Your task to perform on an android device: add a label to a message in the gmail app Image 0: 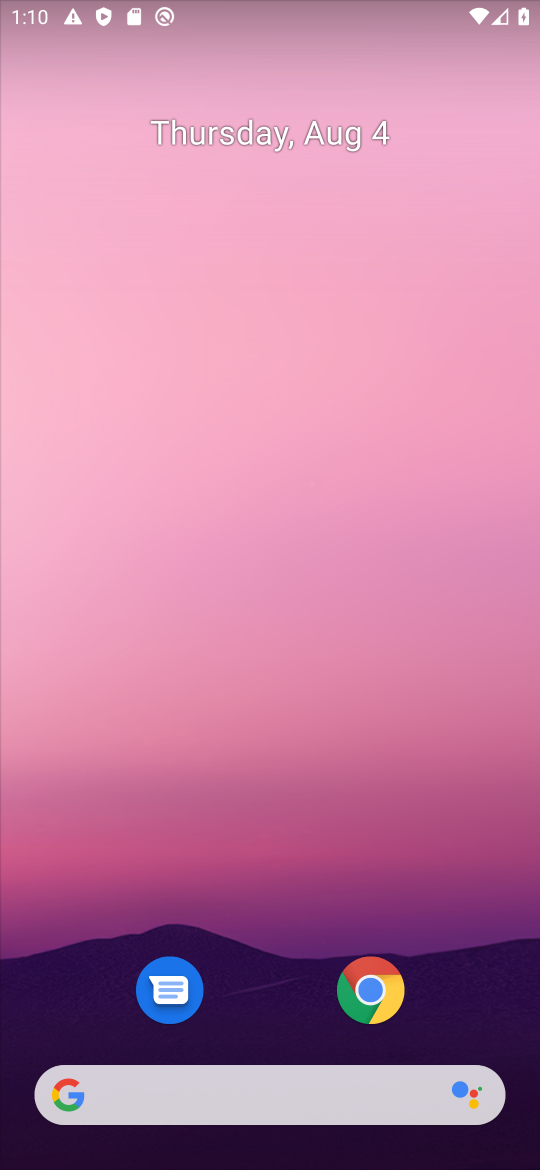
Step 0: drag from (427, 1043) to (379, 246)
Your task to perform on an android device: add a label to a message in the gmail app Image 1: 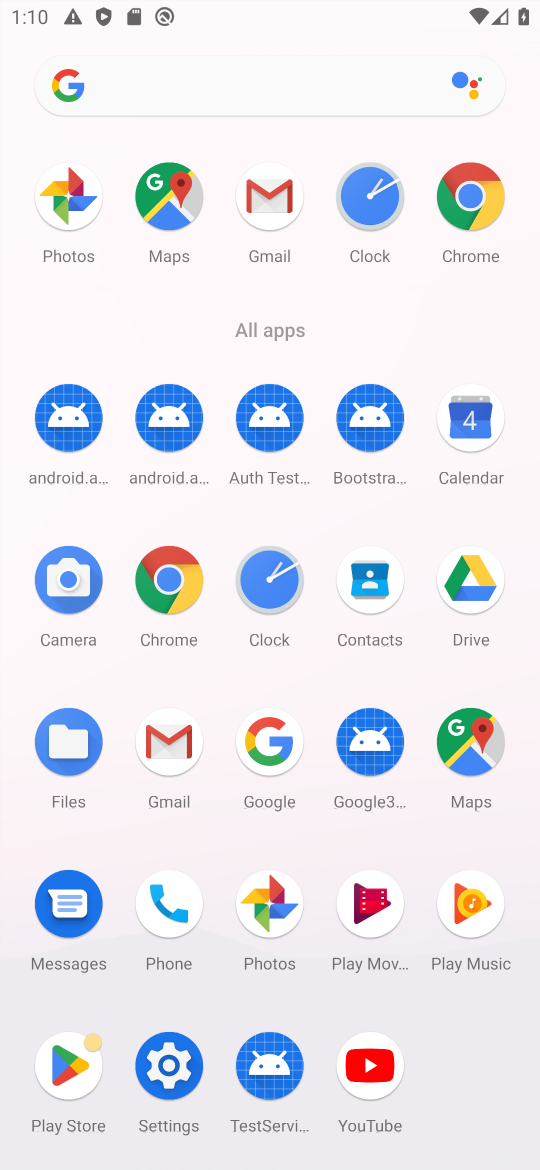
Step 1: click (293, 217)
Your task to perform on an android device: add a label to a message in the gmail app Image 2: 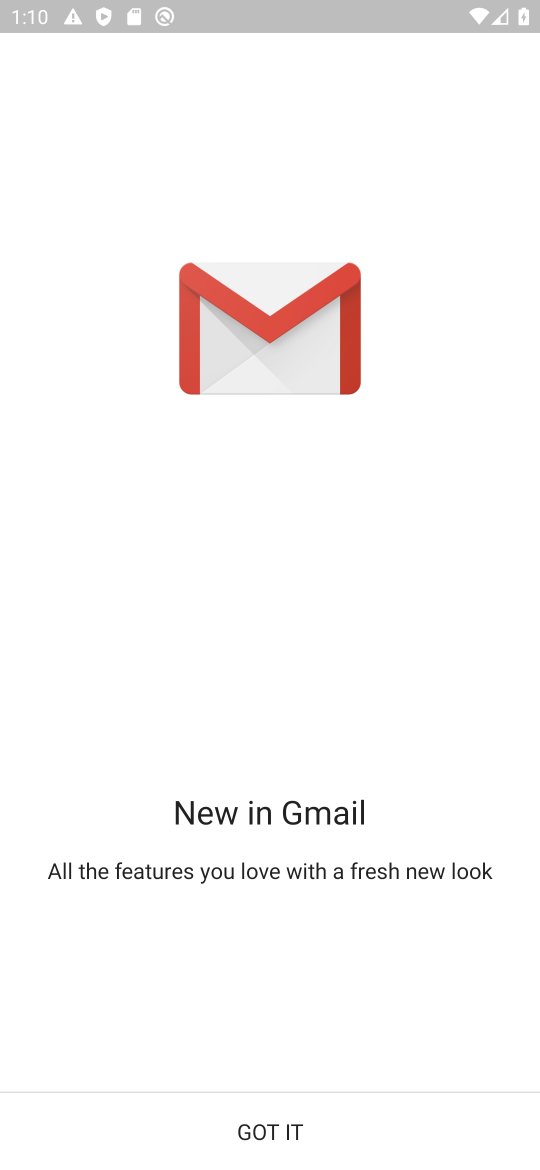
Step 2: click (233, 1105)
Your task to perform on an android device: add a label to a message in the gmail app Image 3: 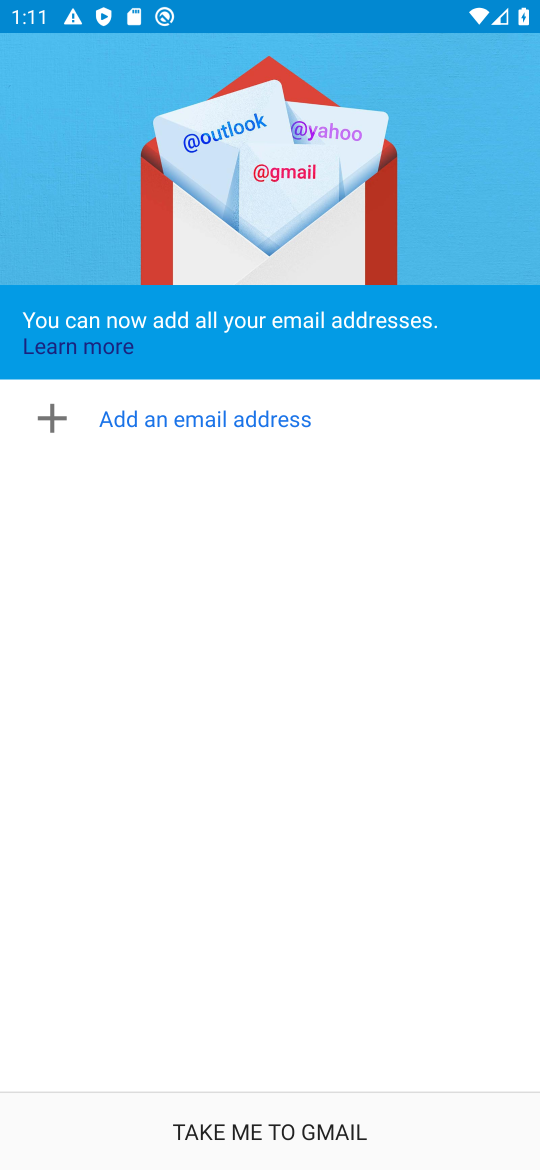
Step 3: click (233, 1105)
Your task to perform on an android device: add a label to a message in the gmail app Image 4: 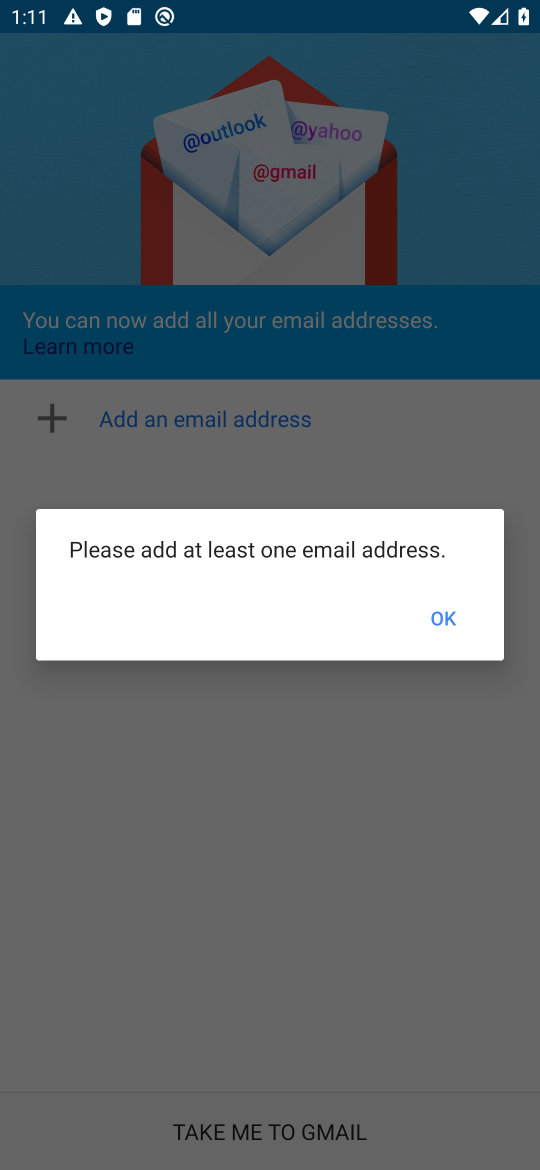
Step 4: click (440, 644)
Your task to perform on an android device: add a label to a message in the gmail app Image 5: 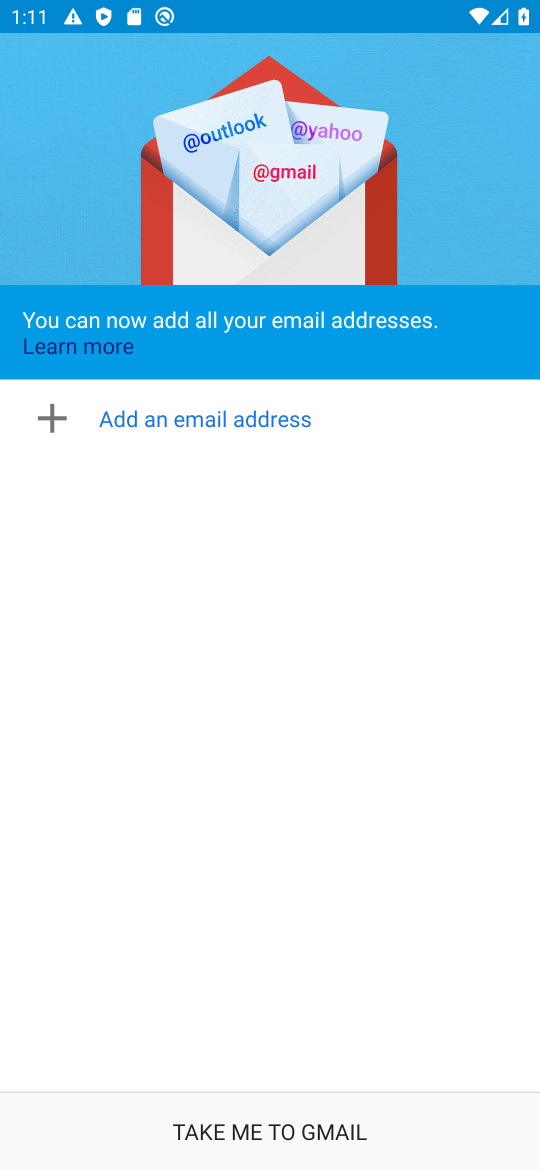
Step 5: click (241, 1121)
Your task to perform on an android device: add a label to a message in the gmail app Image 6: 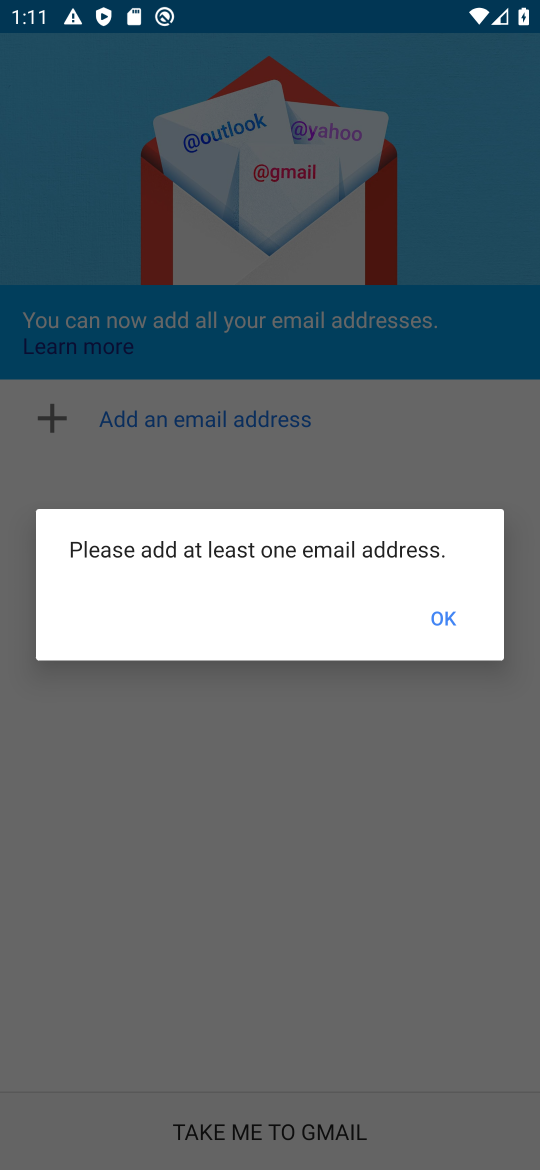
Step 6: task complete